Your task to perform on an android device: Open notification settings Image 0: 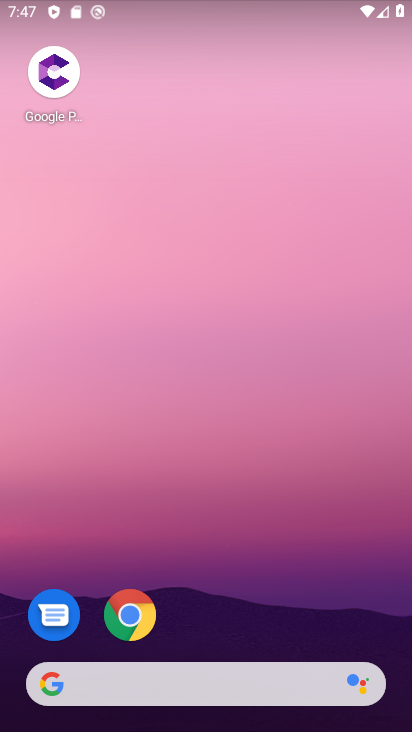
Step 0: drag from (228, 697) to (250, 55)
Your task to perform on an android device: Open notification settings Image 1: 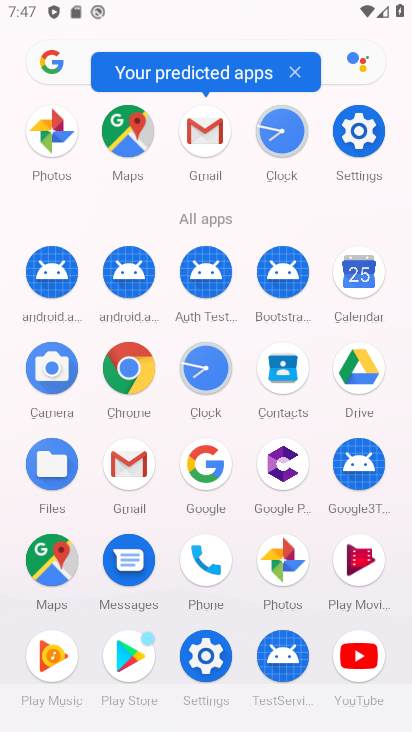
Step 1: click (366, 156)
Your task to perform on an android device: Open notification settings Image 2: 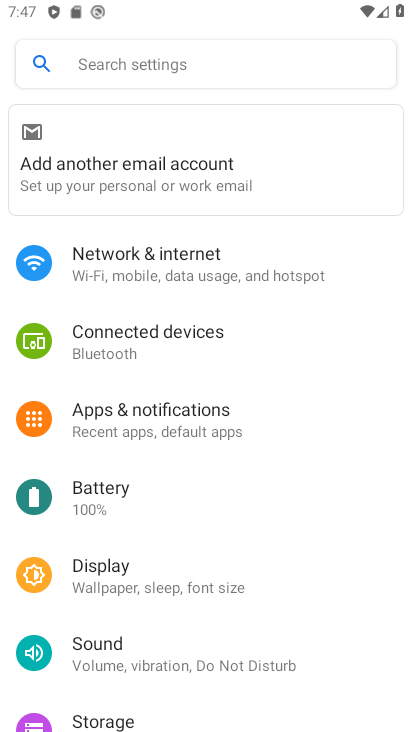
Step 2: click (136, 406)
Your task to perform on an android device: Open notification settings Image 3: 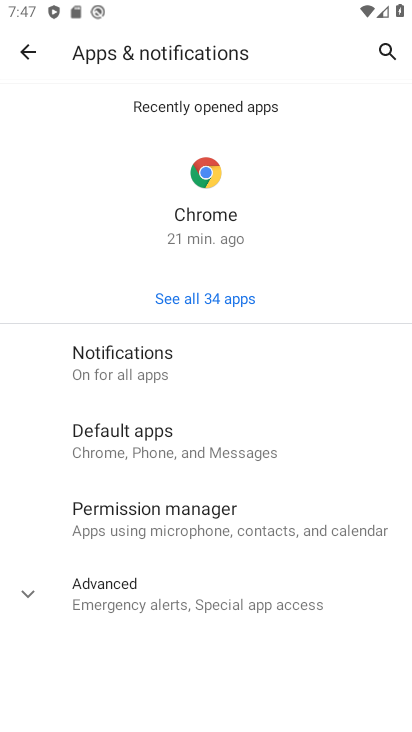
Step 3: click (120, 377)
Your task to perform on an android device: Open notification settings Image 4: 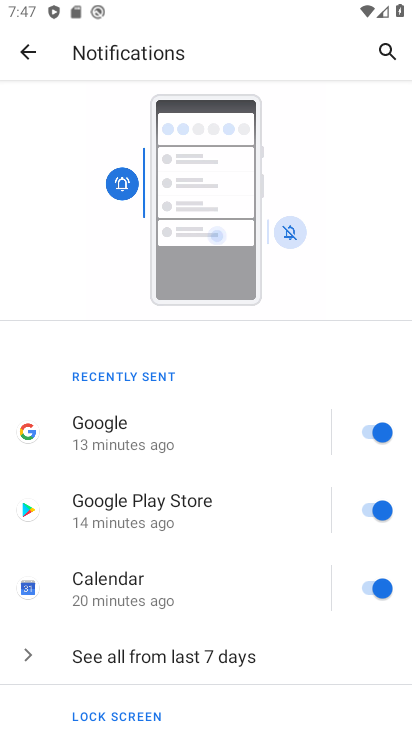
Step 4: task complete